Your task to perform on an android device: add a contact in the contacts app Image 0: 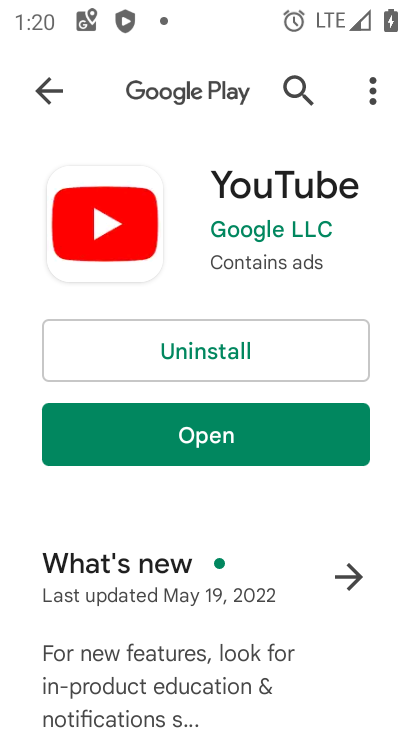
Step 0: press home button
Your task to perform on an android device: add a contact in the contacts app Image 1: 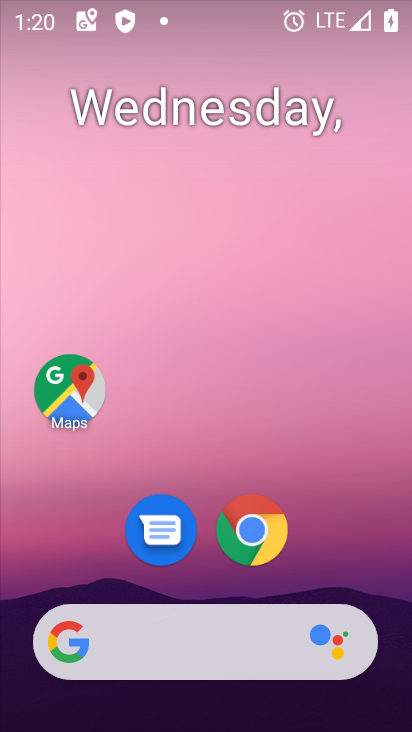
Step 1: drag from (368, 568) to (351, 181)
Your task to perform on an android device: add a contact in the contacts app Image 2: 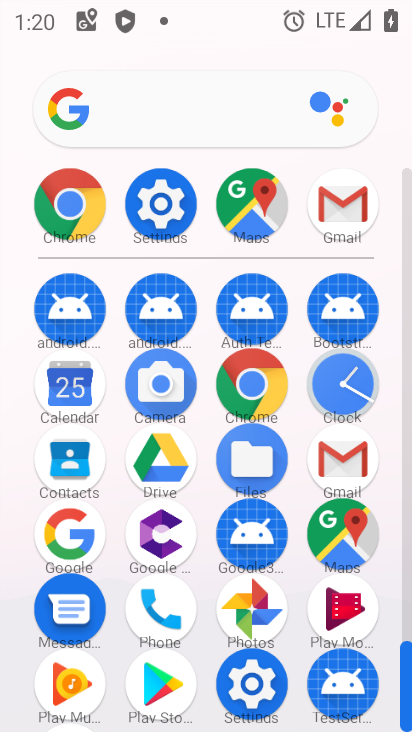
Step 2: click (74, 469)
Your task to perform on an android device: add a contact in the contacts app Image 3: 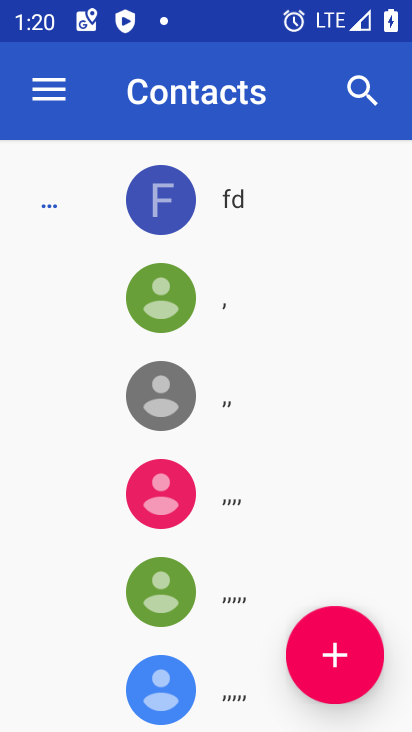
Step 3: click (346, 665)
Your task to perform on an android device: add a contact in the contacts app Image 4: 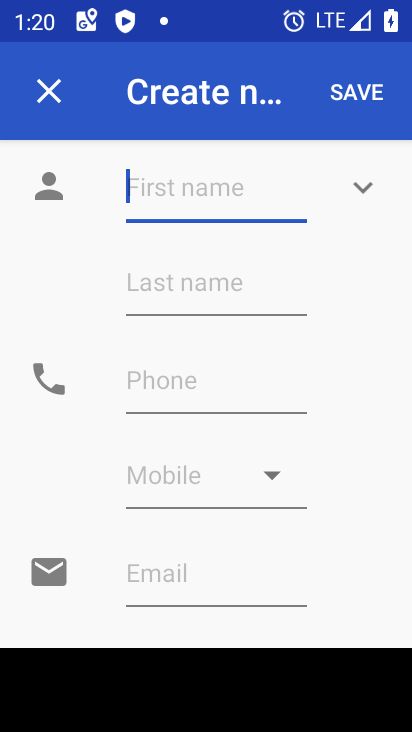
Step 4: click (209, 194)
Your task to perform on an android device: add a contact in the contacts app Image 5: 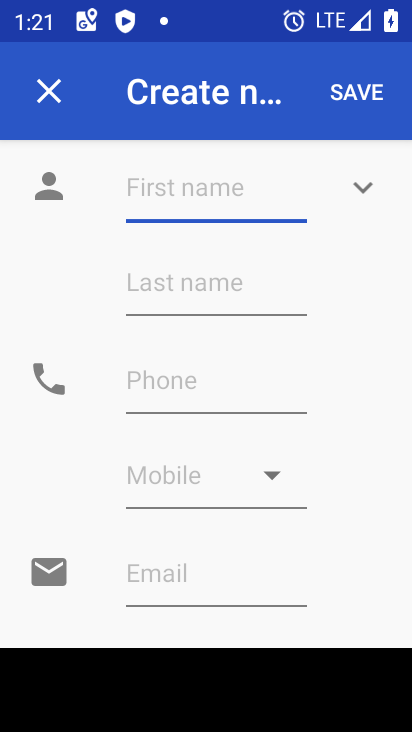
Step 5: type "woidd"
Your task to perform on an android device: add a contact in the contacts app Image 6: 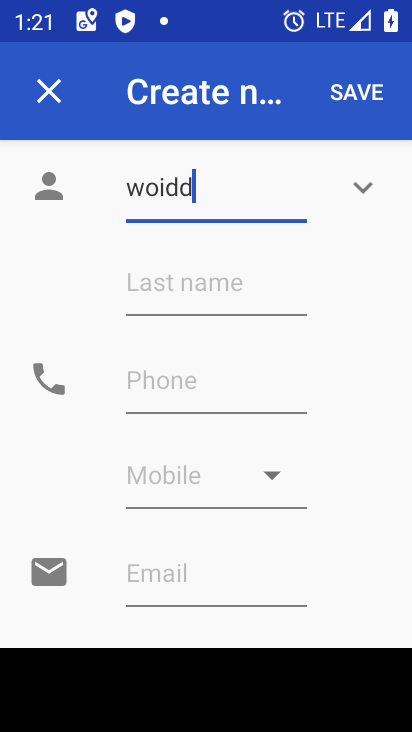
Step 6: click (192, 376)
Your task to perform on an android device: add a contact in the contacts app Image 7: 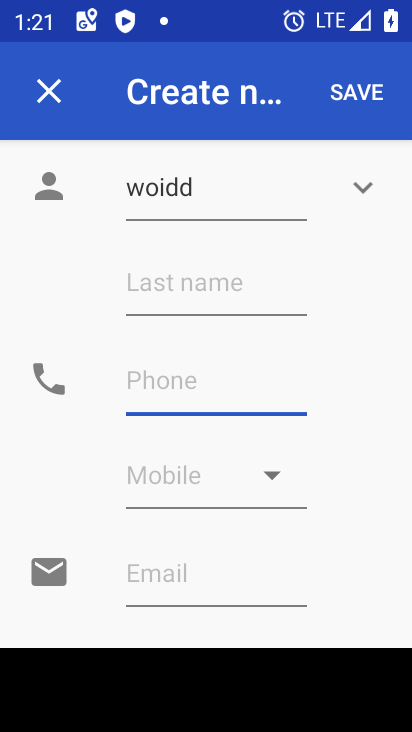
Step 7: type "9837983928"
Your task to perform on an android device: add a contact in the contacts app Image 8: 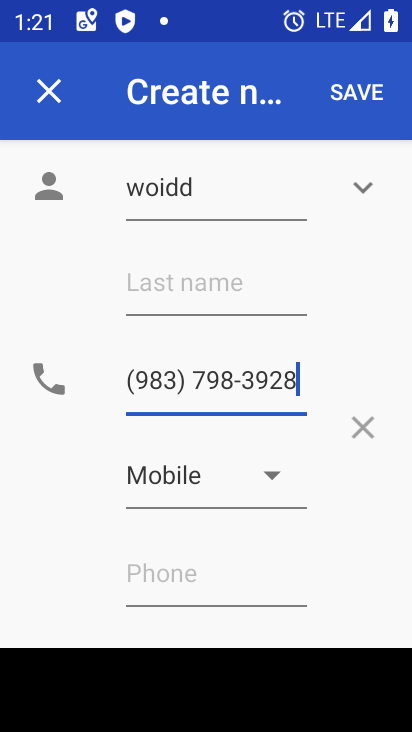
Step 8: click (354, 87)
Your task to perform on an android device: add a contact in the contacts app Image 9: 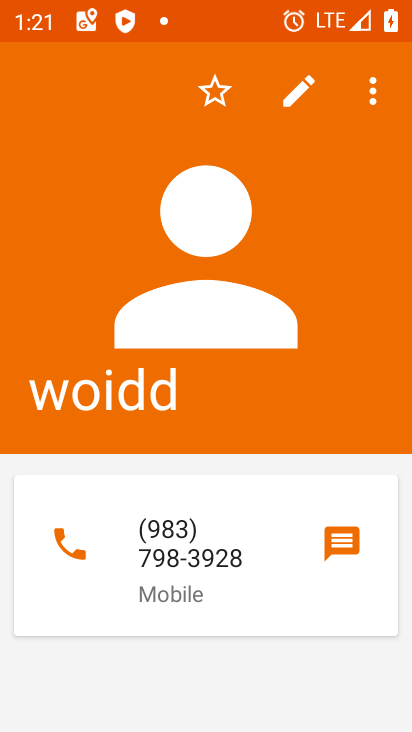
Step 9: task complete